Your task to perform on an android device: Open Google Maps and go to "Timeline" Image 0: 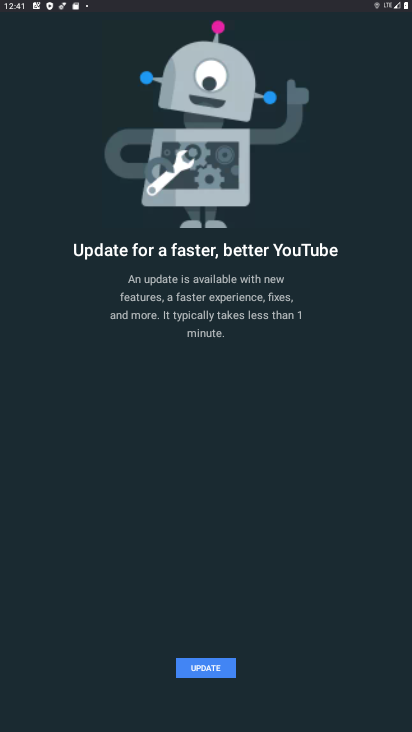
Step 0: press back button
Your task to perform on an android device: Open Google Maps and go to "Timeline" Image 1: 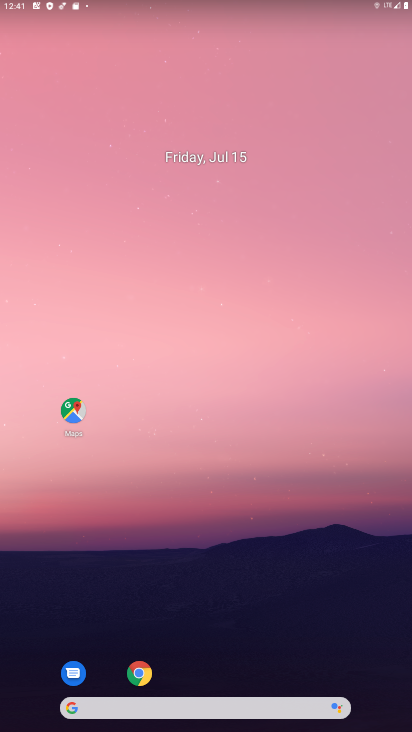
Step 1: drag from (62, 410) to (130, 410)
Your task to perform on an android device: Open Google Maps and go to "Timeline" Image 2: 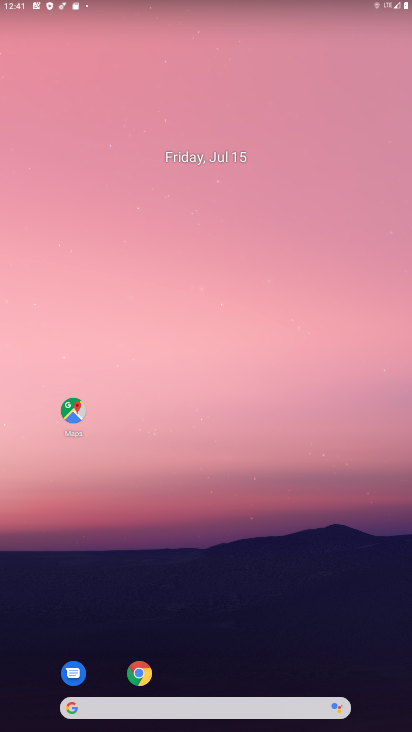
Step 2: click (73, 412)
Your task to perform on an android device: Open Google Maps and go to "Timeline" Image 3: 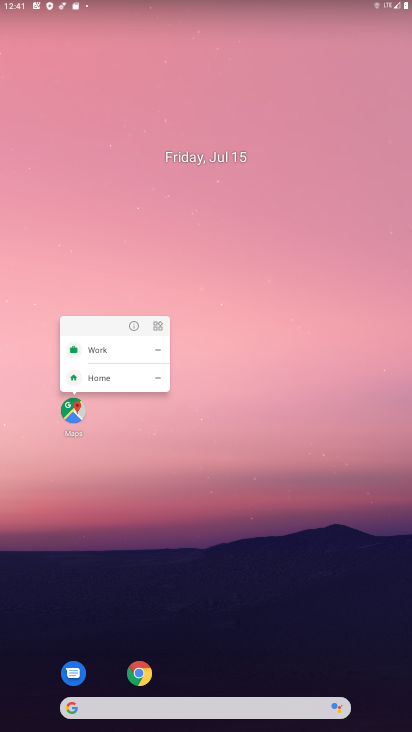
Step 3: click (73, 410)
Your task to perform on an android device: Open Google Maps and go to "Timeline" Image 4: 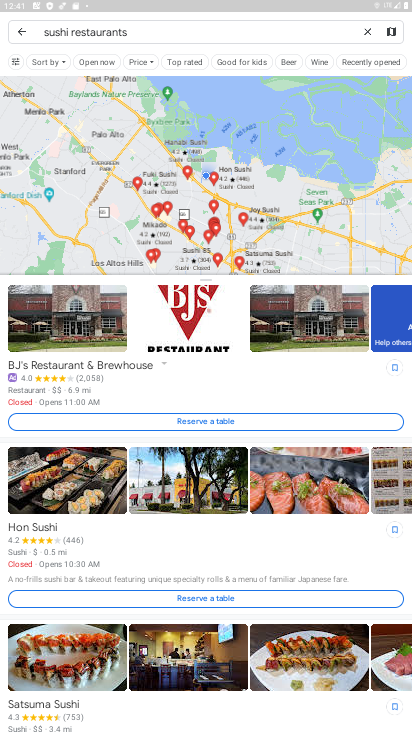
Step 4: click (26, 31)
Your task to perform on an android device: Open Google Maps and go to "Timeline" Image 5: 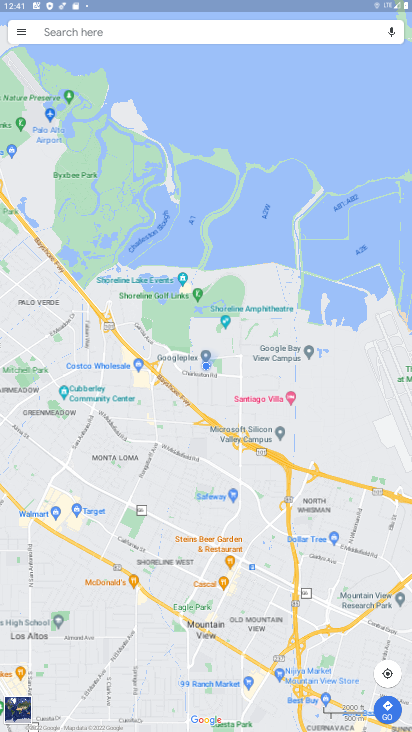
Step 5: click (17, 26)
Your task to perform on an android device: Open Google Maps and go to "Timeline" Image 6: 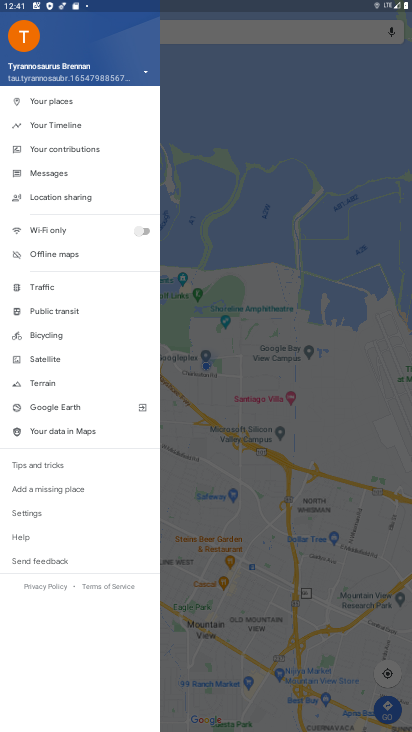
Step 6: click (48, 127)
Your task to perform on an android device: Open Google Maps and go to "Timeline" Image 7: 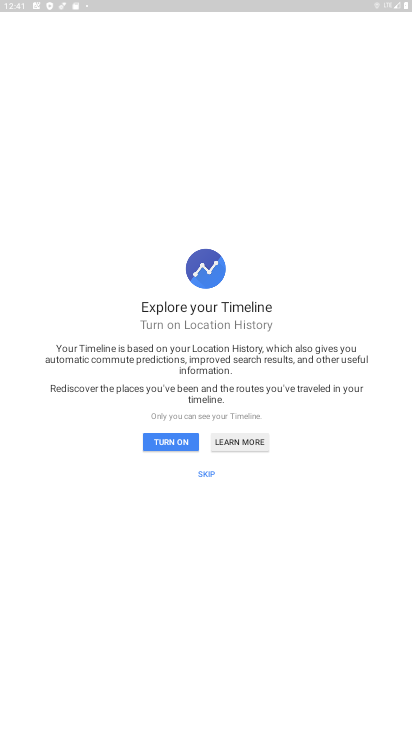
Step 7: click (177, 444)
Your task to perform on an android device: Open Google Maps and go to "Timeline" Image 8: 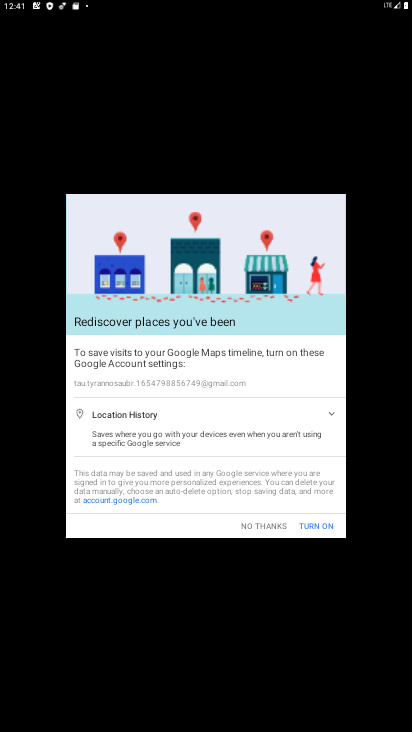
Step 8: click (325, 530)
Your task to perform on an android device: Open Google Maps and go to "Timeline" Image 9: 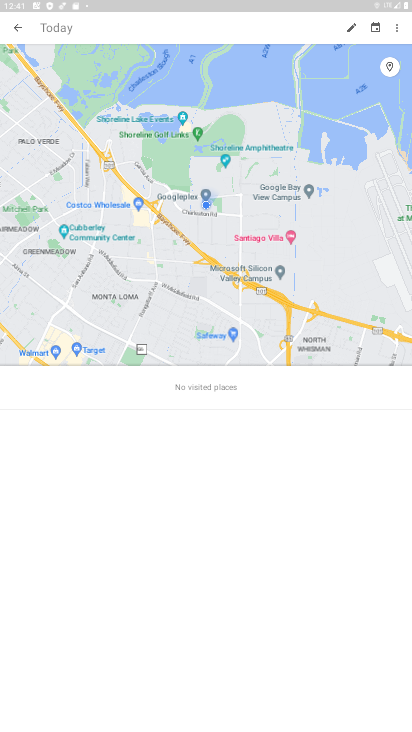
Step 9: task complete